Your task to perform on an android device: What's on my calendar today? Image 0: 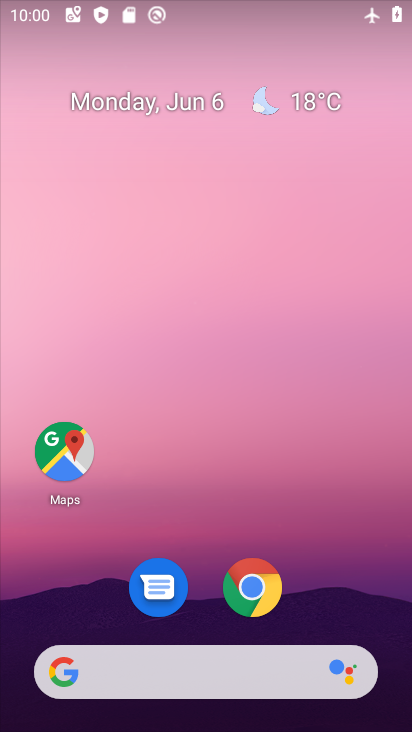
Step 0: drag from (327, 531) to (301, 217)
Your task to perform on an android device: What's on my calendar today? Image 1: 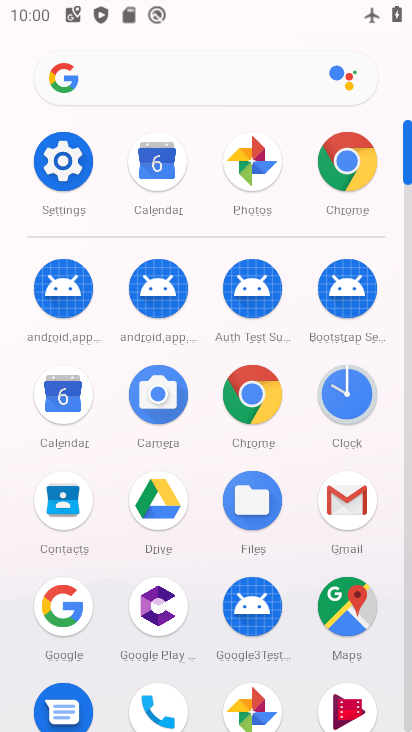
Step 1: click (56, 399)
Your task to perform on an android device: What's on my calendar today? Image 2: 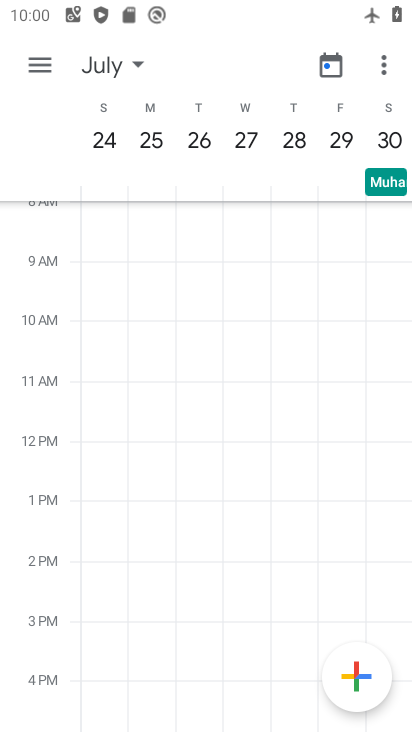
Step 2: click (113, 59)
Your task to perform on an android device: What's on my calendar today? Image 3: 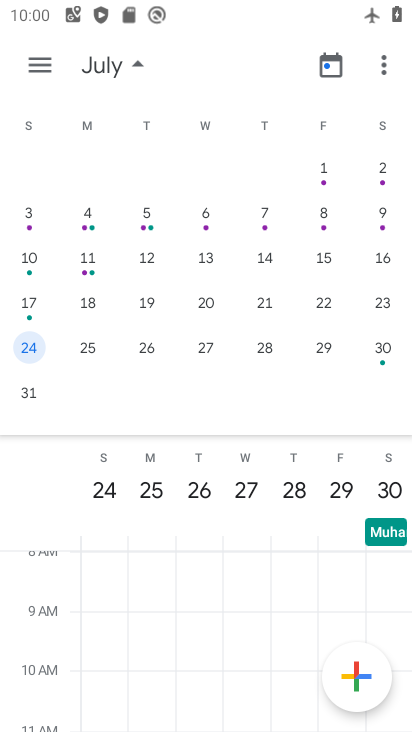
Step 3: drag from (42, 285) to (354, 255)
Your task to perform on an android device: What's on my calendar today? Image 4: 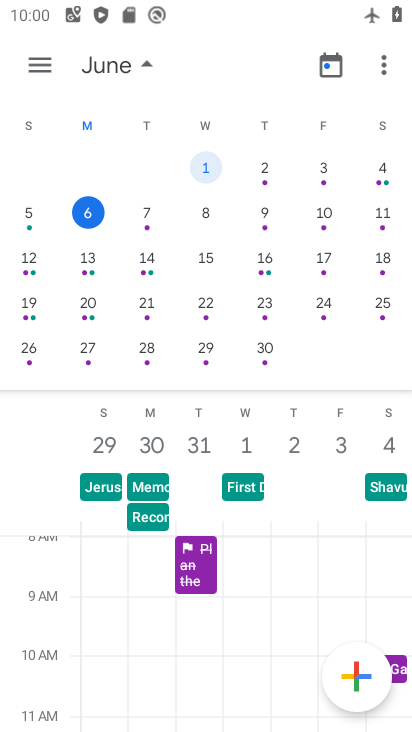
Step 4: click (91, 216)
Your task to perform on an android device: What's on my calendar today? Image 5: 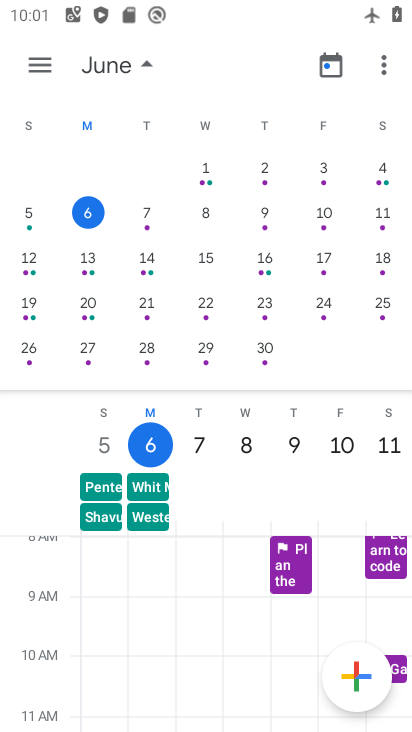
Step 5: click (149, 440)
Your task to perform on an android device: What's on my calendar today? Image 6: 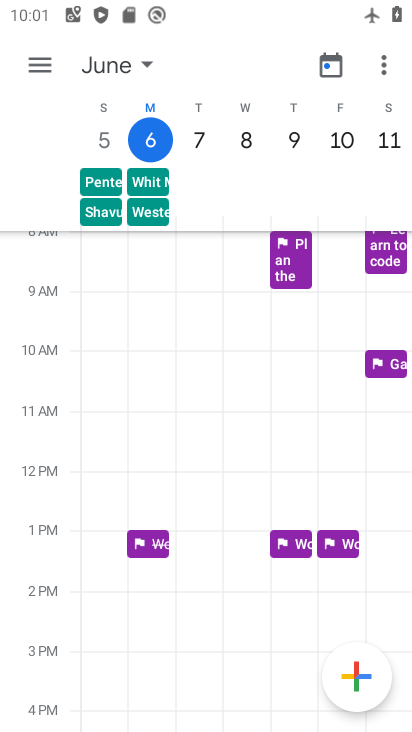
Step 6: click (154, 138)
Your task to perform on an android device: What's on my calendar today? Image 7: 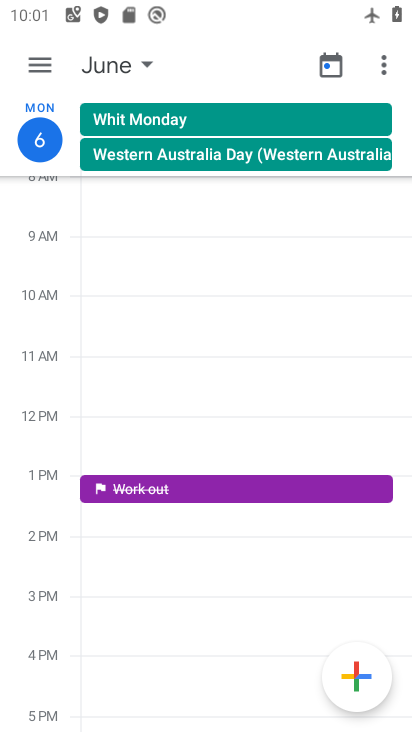
Step 7: task complete